Your task to perform on an android device: Go to ESPN.com Image 0: 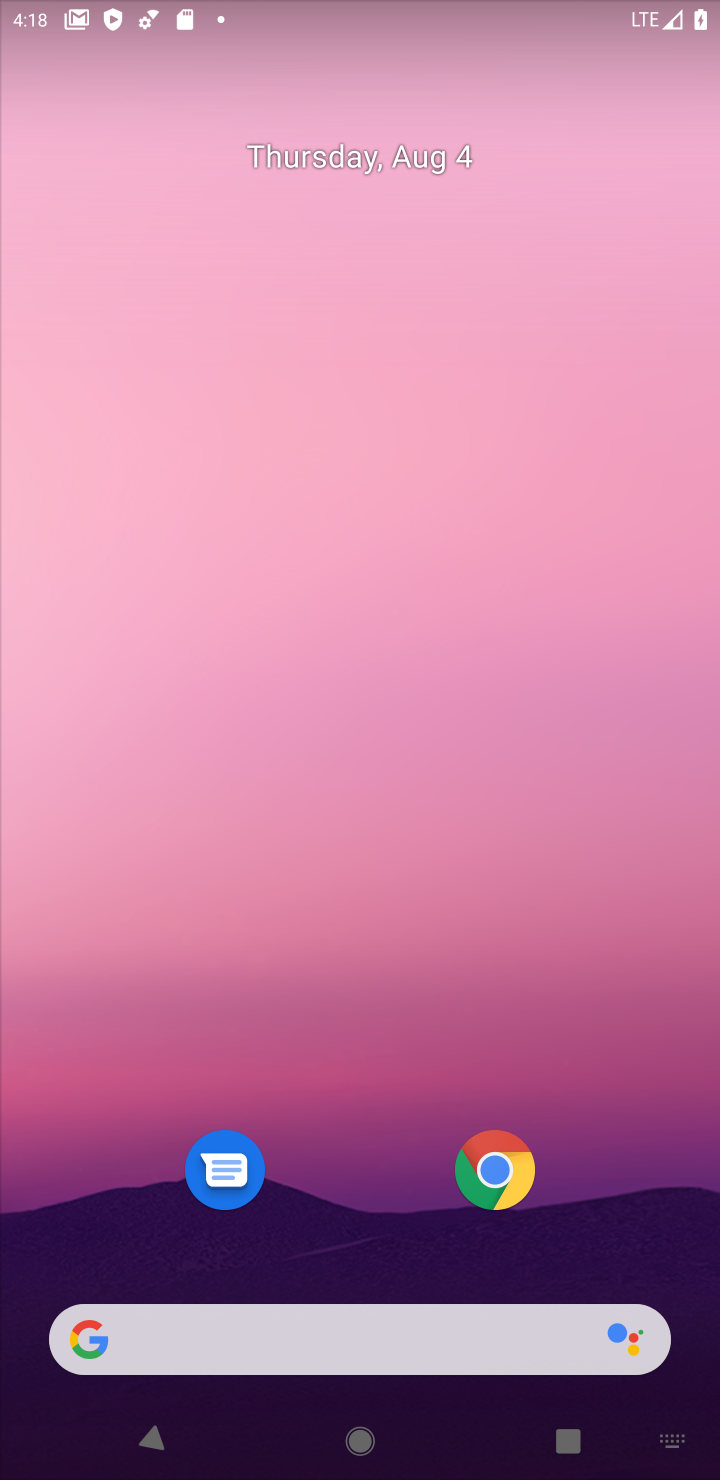
Step 0: click (519, 1167)
Your task to perform on an android device: Go to ESPN.com Image 1: 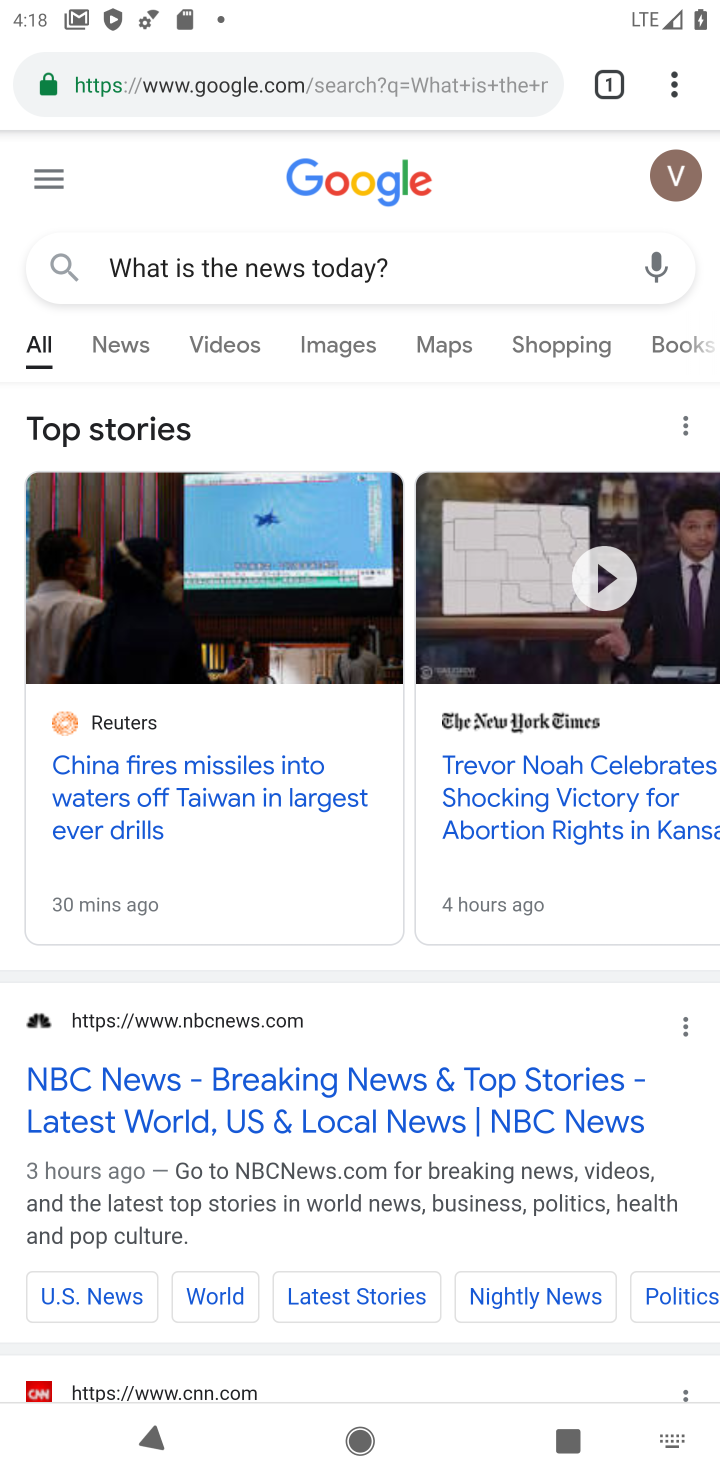
Step 1: click (662, 75)
Your task to perform on an android device: Go to ESPN.com Image 2: 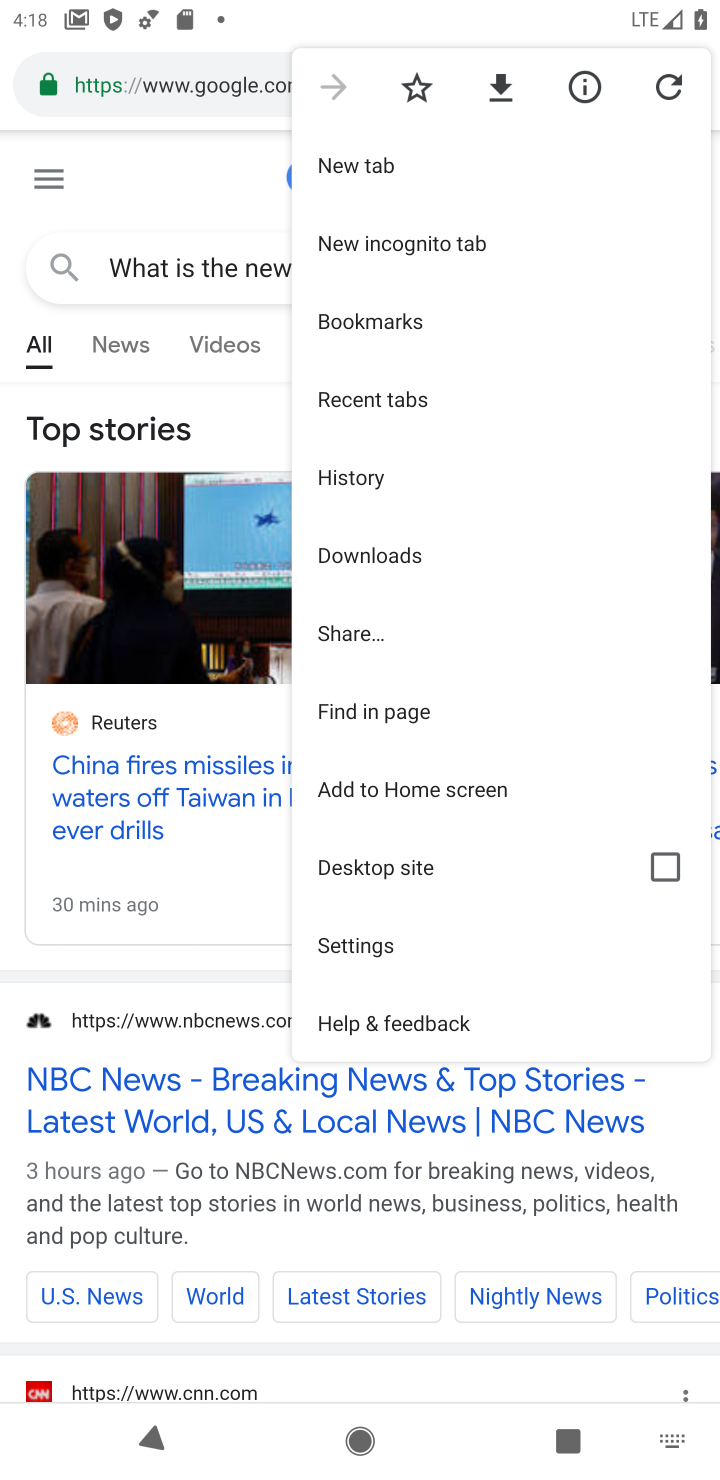
Step 2: click (492, 154)
Your task to perform on an android device: Go to ESPN.com Image 3: 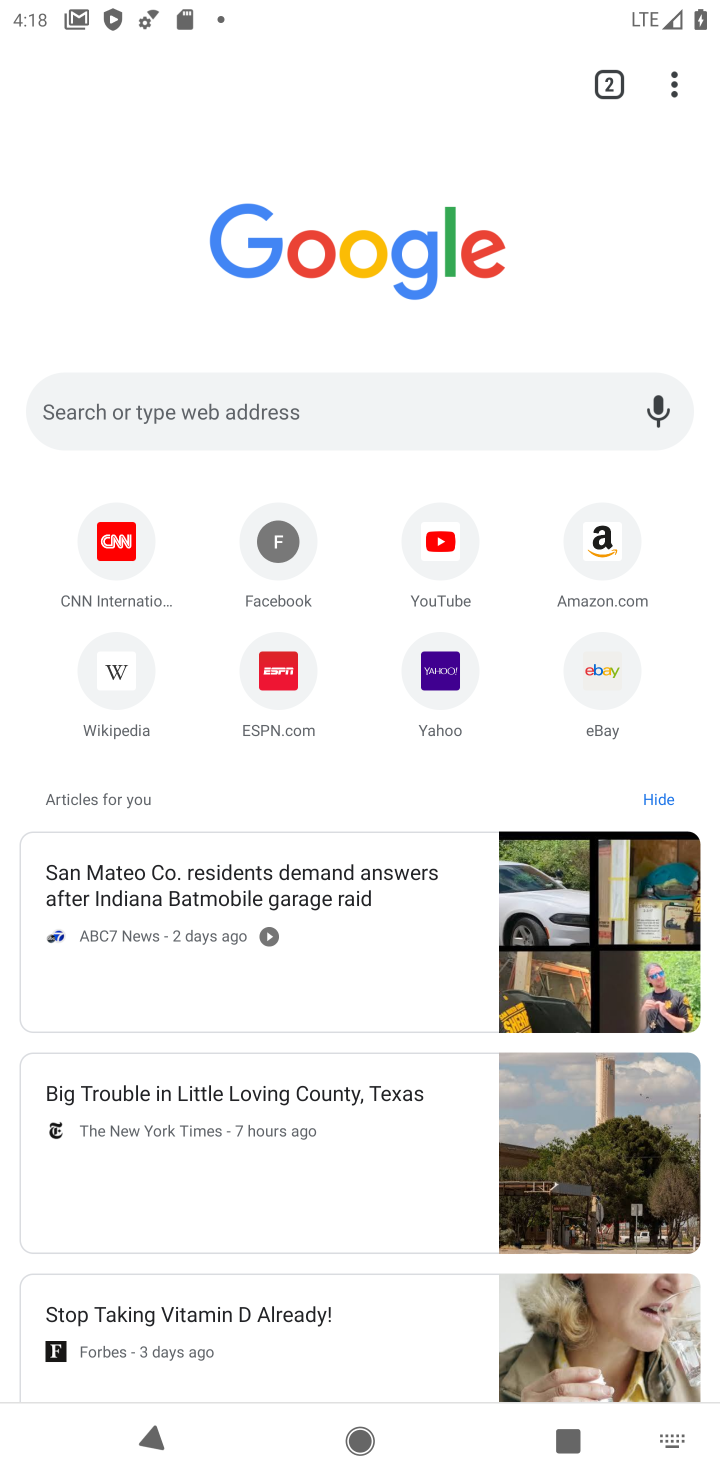
Step 3: click (258, 711)
Your task to perform on an android device: Go to ESPN.com Image 4: 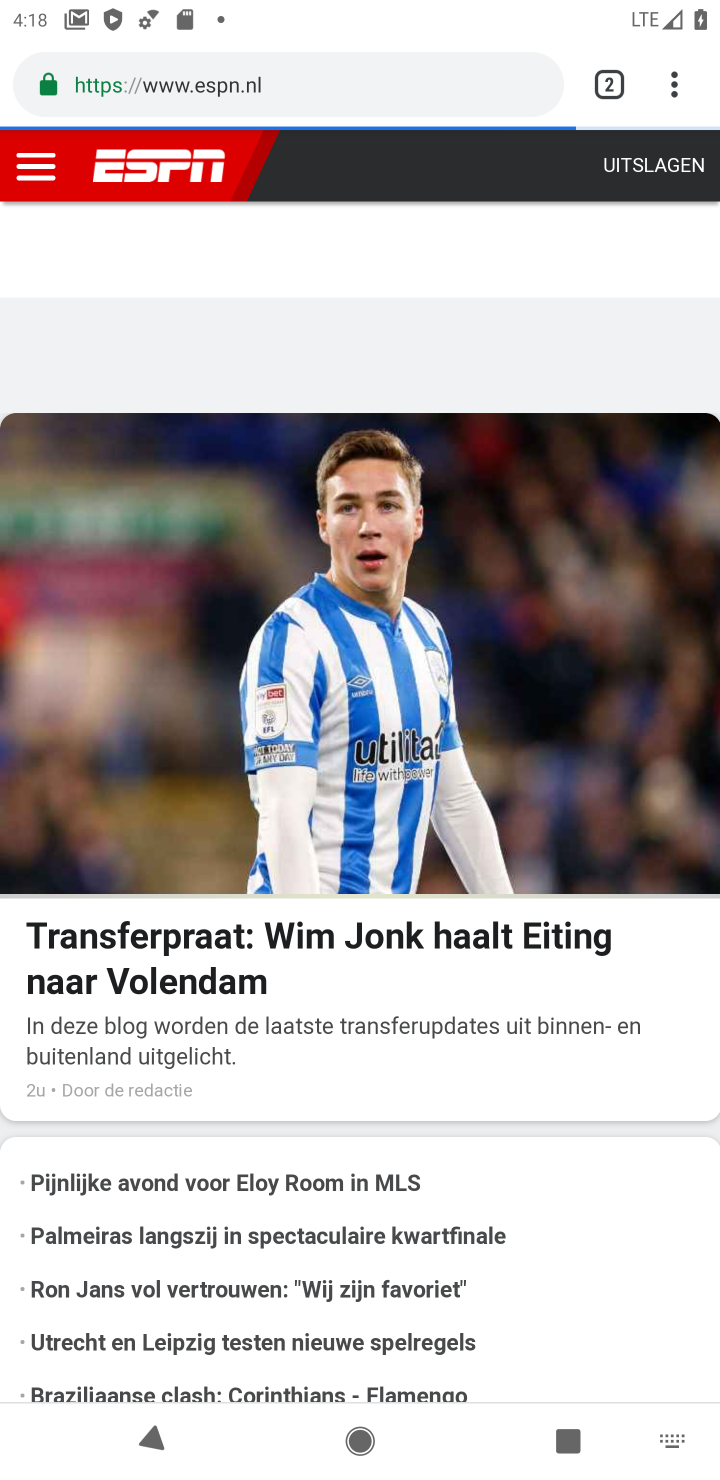
Step 4: task complete